Your task to perform on an android device: change notification settings in the gmail app Image 0: 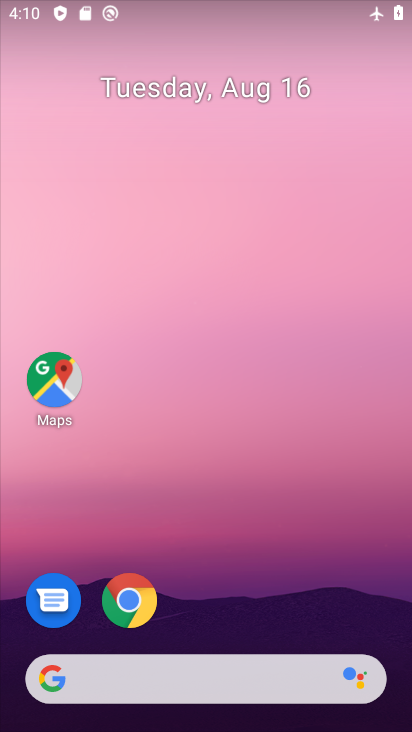
Step 0: drag from (261, 185) to (288, 54)
Your task to perform on an android device: change notification settings in the gmail app Image 1: 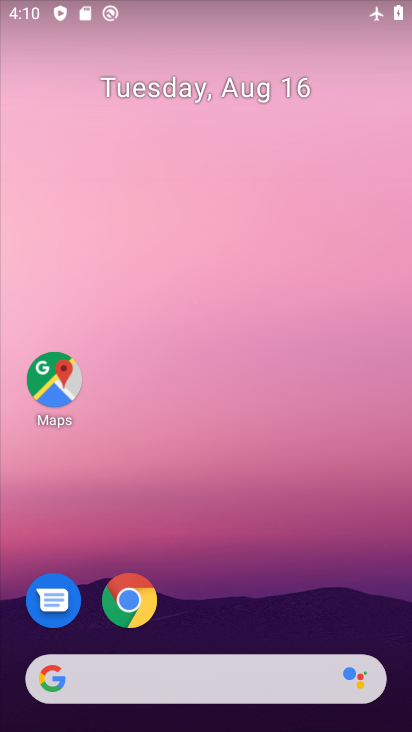
Step 1: drag from (201, 405) to (214, 257)
Your task to perform on an android device: change notification settings in the gmail app Image 2: 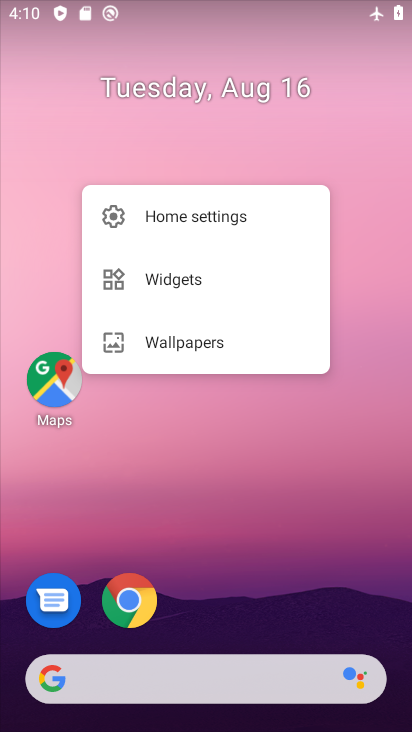
Step 2: drag from (231, 614) to (253, 9)
Your task to perform on an android device: change notification settings in the gmail app Image 3: 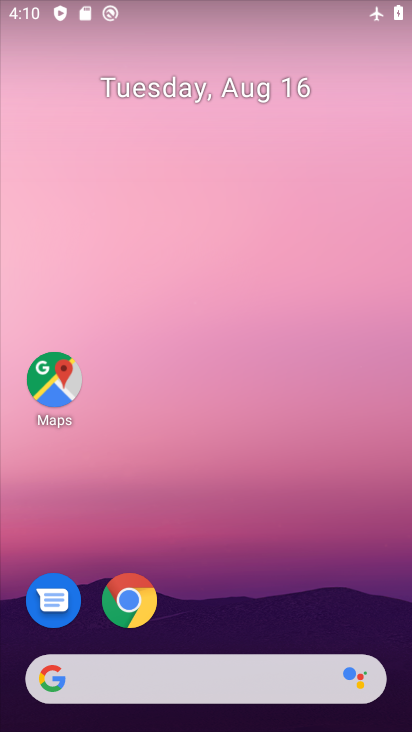
Step 3: drag from (254, 592) to (265, 111)
Your task to perform on an android device: change notification settings in the gmail app Image 4: 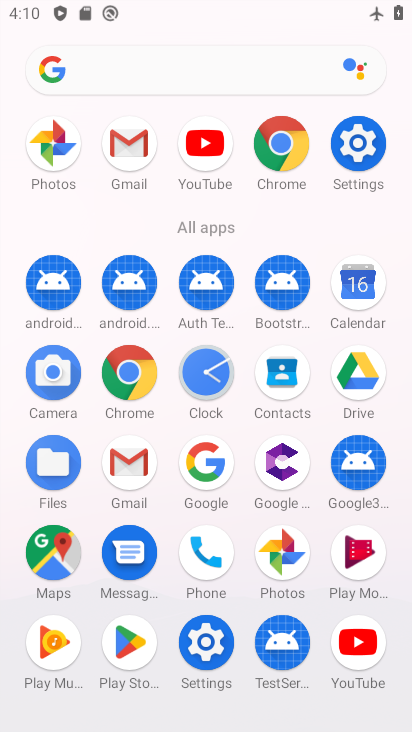
Step 4: click (240, 101)
Your task to perform on an android device: change notification settings in the gmail app Image 5: 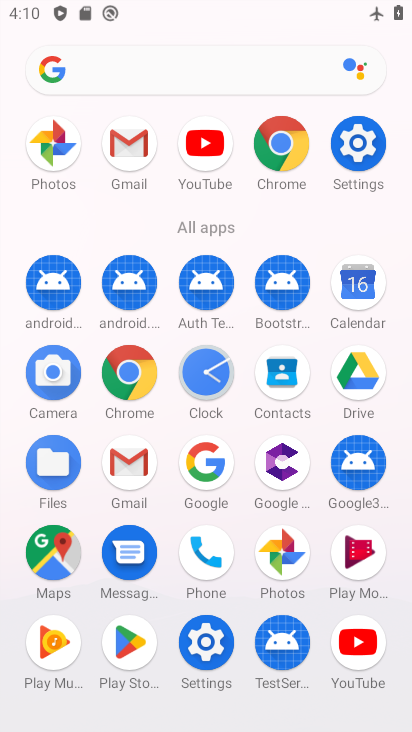
Step 5: click (241, 599)
Your task to perform on an android device: change notification settings in the gmail app Image 6: 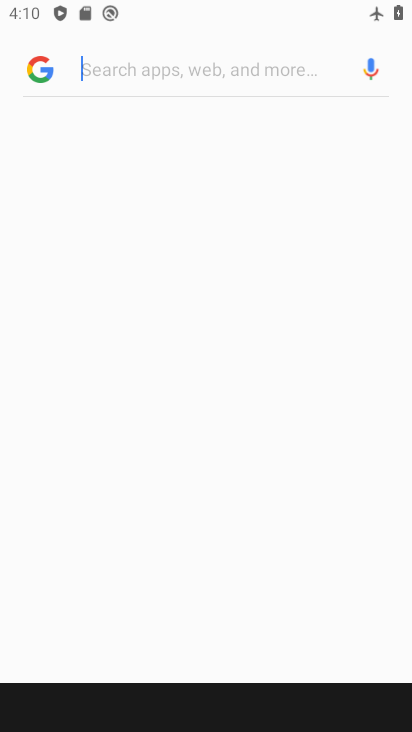
Step 6: drag from (247, 166) to (259, 111)
Your task to perform on an android device: change notification settings in the gmail app Image 7: 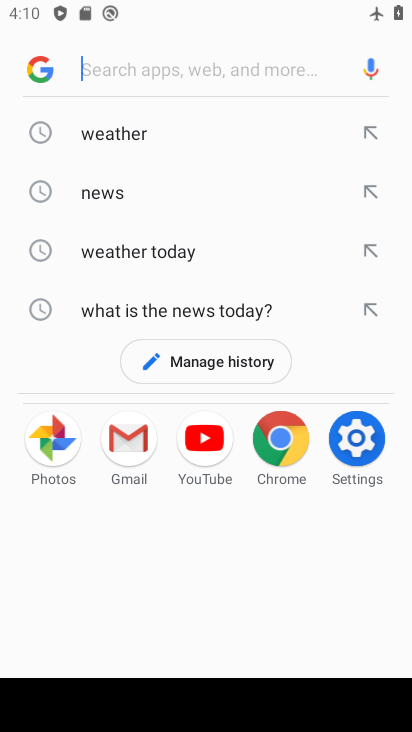
Step 7: press home button
Your task to perform on an android device: change notification settings in the gmail app Image 8: 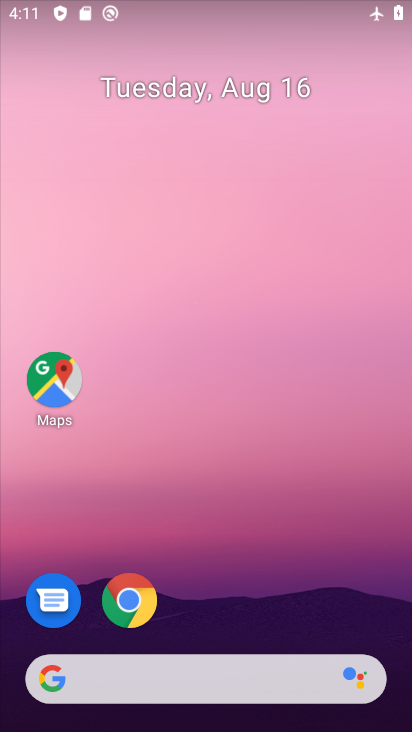
Step 8: click (249, 60)
Your task to perform on an android device: change notification settings in the gmail app Image 9: 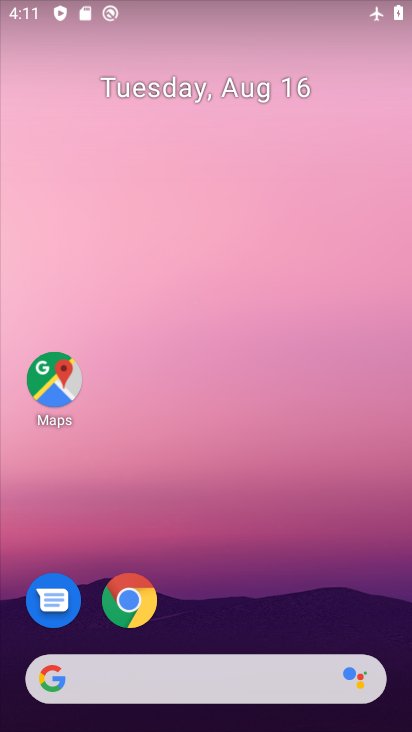
Step 9: drag from (252, 438) to (262, 18)
Your task to perform on an android device: change notification settings in the gmail app Image 10: 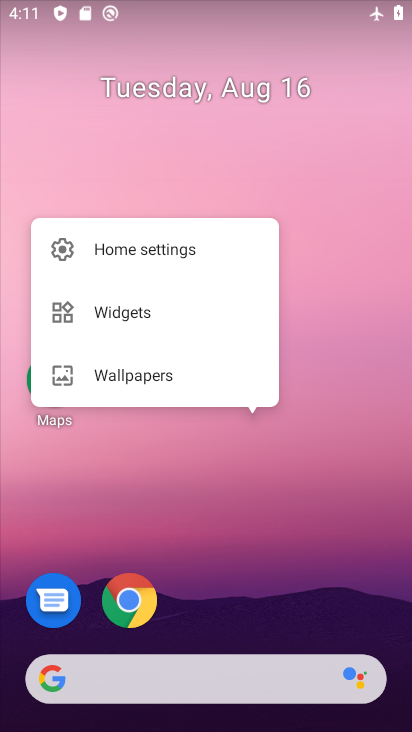
Step 10: drag from (198, 243) to (212, 0)
Your task to perform on an android device: change notification settings in the gmail app Image 11: 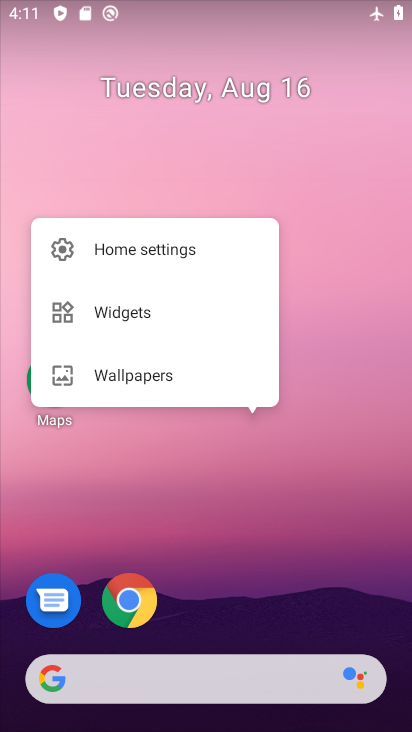
Step 11: click (243, 521)
Your task to perform on an android device: change notification settings in the gmail app Image 12: 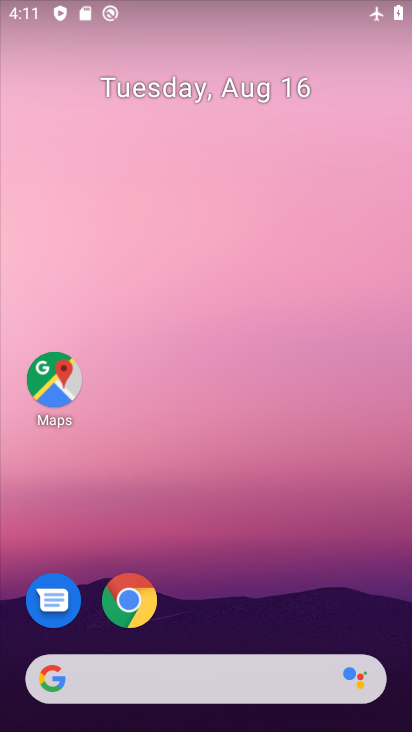
Step 12: drag from (244, 615) to (259, 4)
Your task to perform on an android device: change notification settings in the gmail app Image 13: 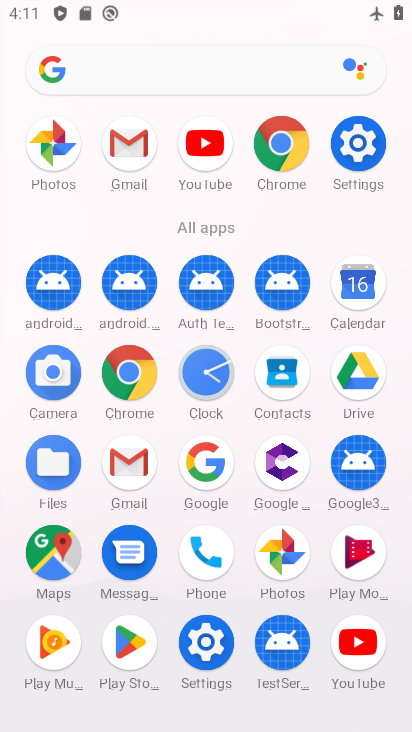
Step 13: click (135, 472)
Your task to perform on an android device: change notification settings in the gmail app Image 14: 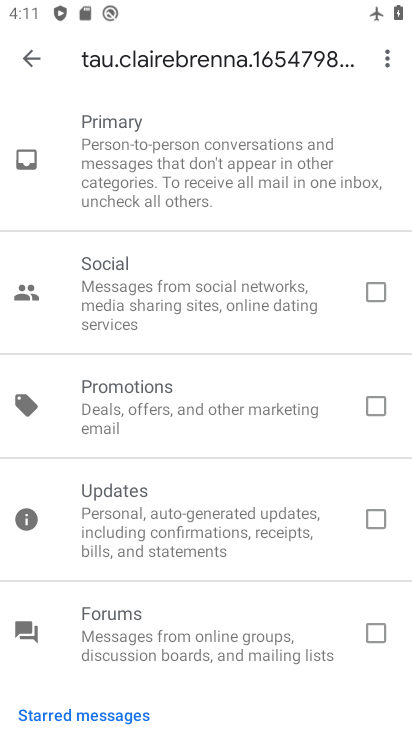
Step 14: click (25, 51)
Your task to perform on an android device: change notification settings in the gmail app Image 15: 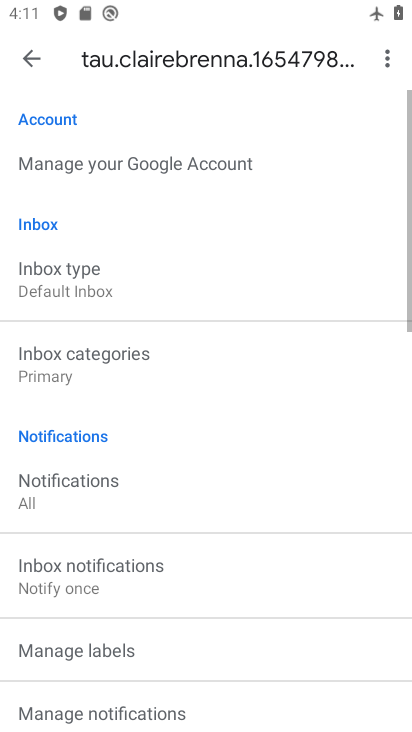
Step 15: click (26, 50)
Your task to perform on an android device: change notification settings in the gmail app Image 16: 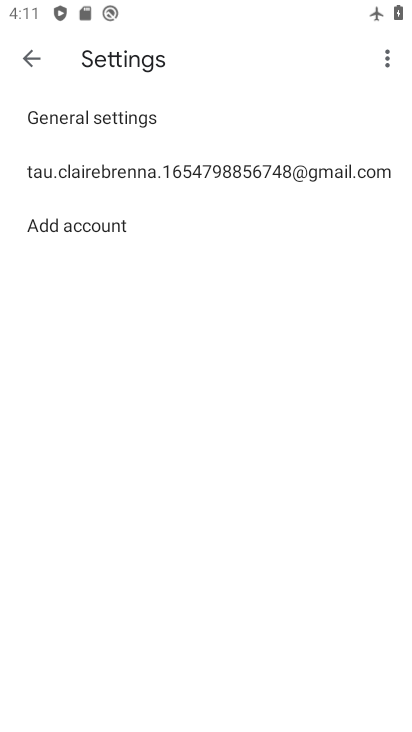
Step 16: click (134, 118)
Your task to perform on an android device: change notification settings in the gmail app Image 17: 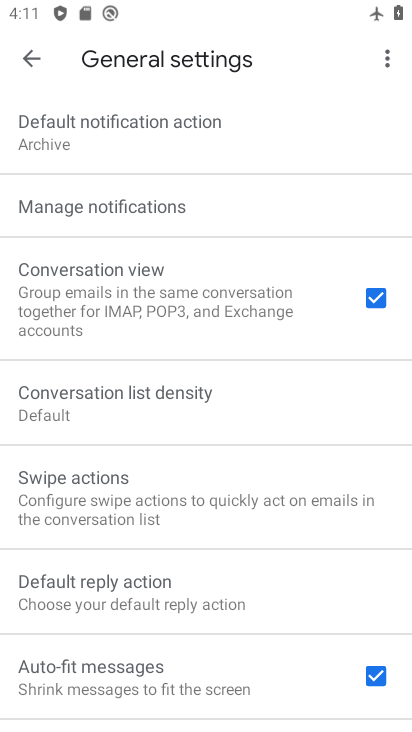
Step 17: click (101, 197)
Your task to perform on an android device: change notification settings in the gmail app Image 18: 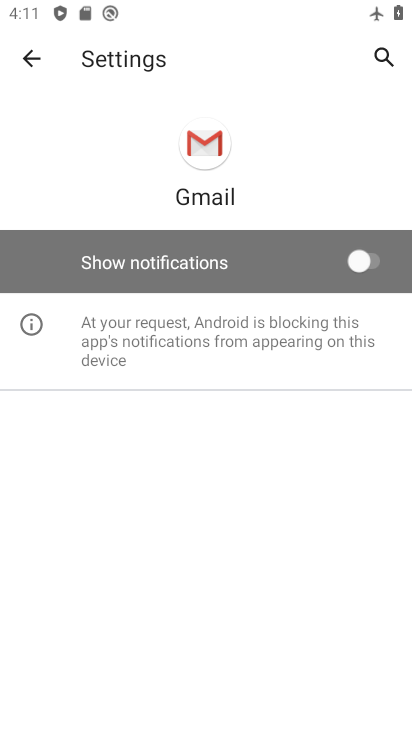
Step 18: click (391, 261)
Your task to perform on an android device: change notification settings in the gmail app Image 19: 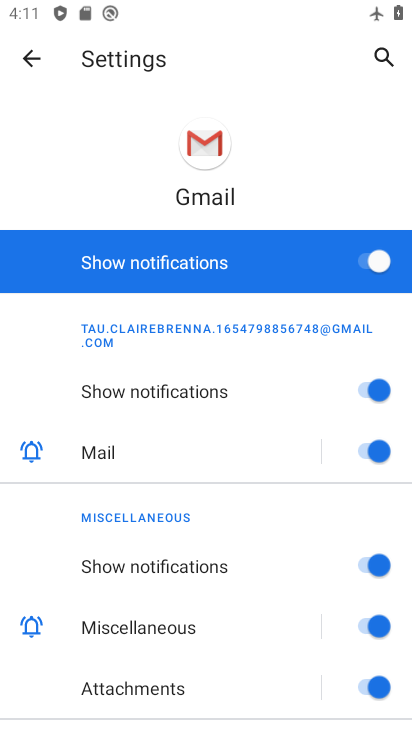
Step 19: task complete